Your task to perform on an android device: toggle notification dots Image 0: 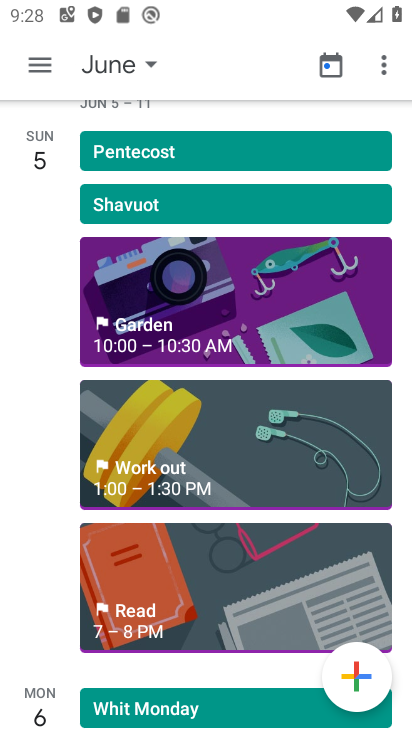
Step 0: press home button
Your task to perform on an android device: toggle notification dots Image 1: 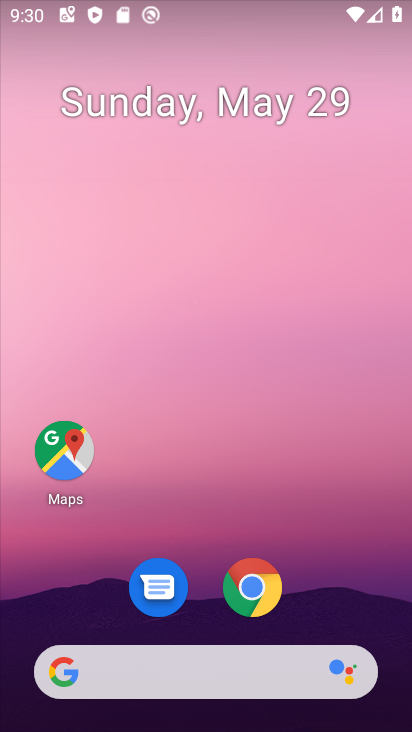
Step 1: drag from (205, 442) to (211, 53)
Your task to perform on an android device: toggle notification dots Image 2: 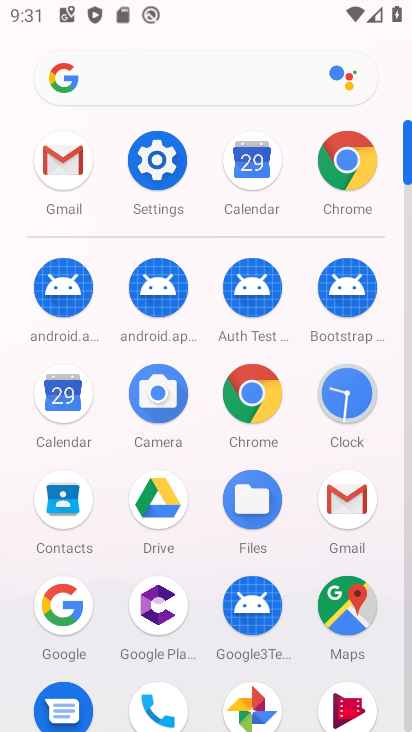
Step 2: click (167, 168)
Your task to perform on an android device: toggle notification dots Image 3: 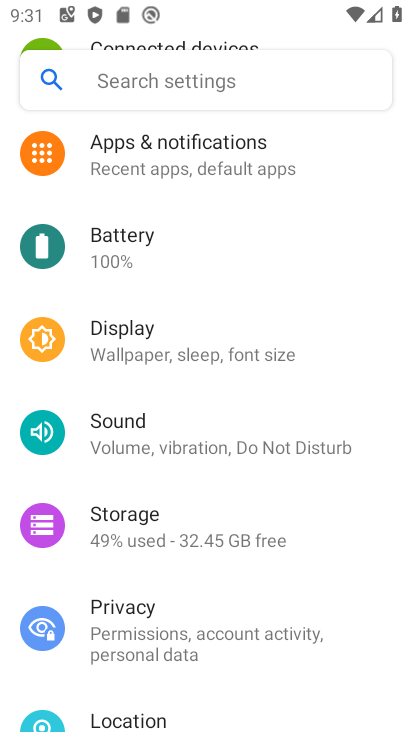
Step 3: click (257, 159)
Your task to perform on an android device: toggle notification dots Image 4: 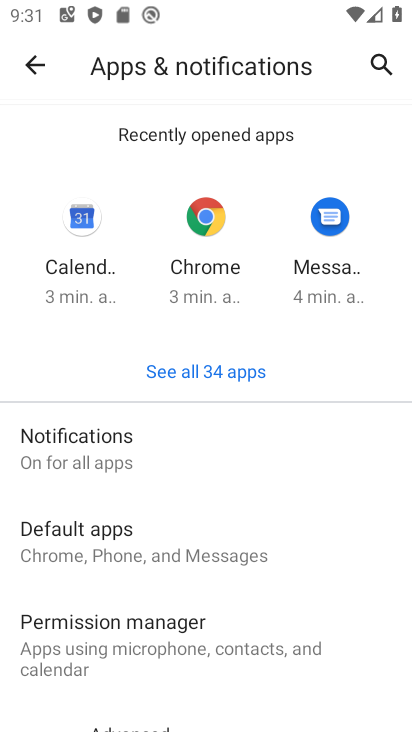
Step 4: click (79, 435)
Your task to perform on an android device: toggle notification dots Image 5: 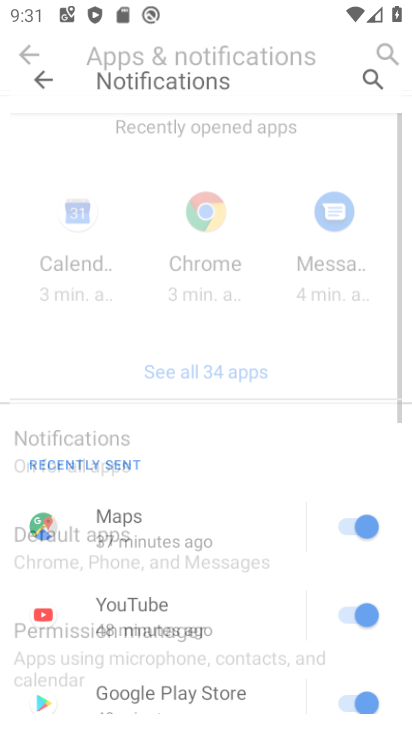
Step 5: drag from (188, 574) to (226, 71)
Your task to perform on an android device: toggle notification dots Image 6: 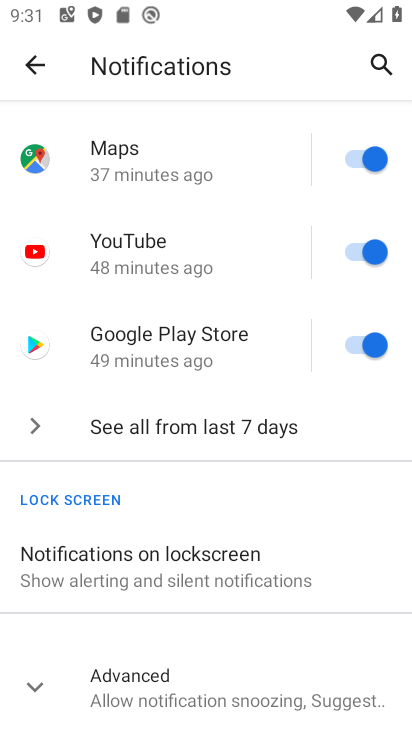
Step 6: drag from (202, 494) to (269, 62)
Your task to perform on an android device: toggle notification dots Image 7: 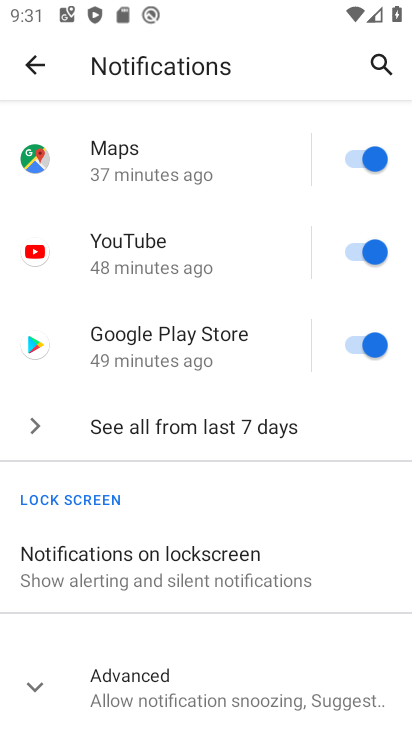
Step 7: click (129, 677)
Your task to perform on an android device: toggle notification dots Image 8: 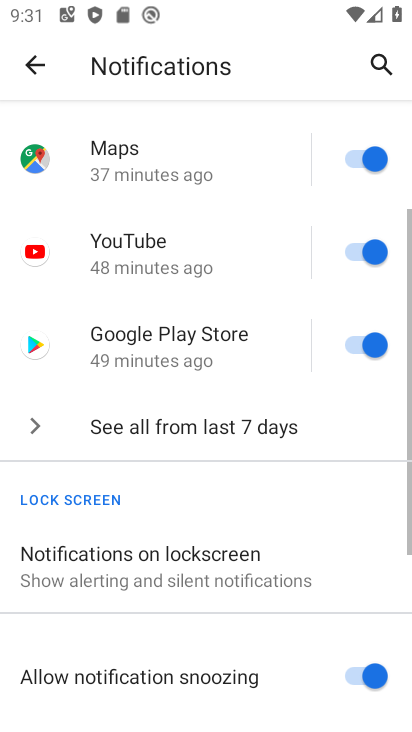
Step 8: drag from (195, 614) to (308, 136)
Your task to perform on an android device: toggle notification dots Image 9: 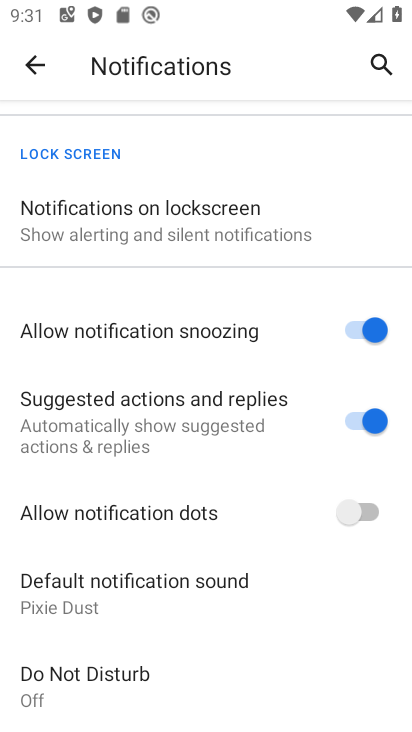
Step 9: click (357, 512)
Your task to perform on an android device: toggle notification dots Image 10: 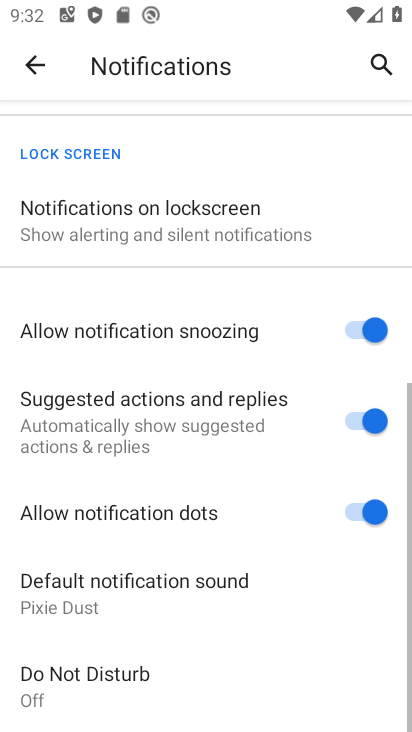
Step 10: task complete